Your task to perform on an android device: toggle translation in the chrome app Image 0: 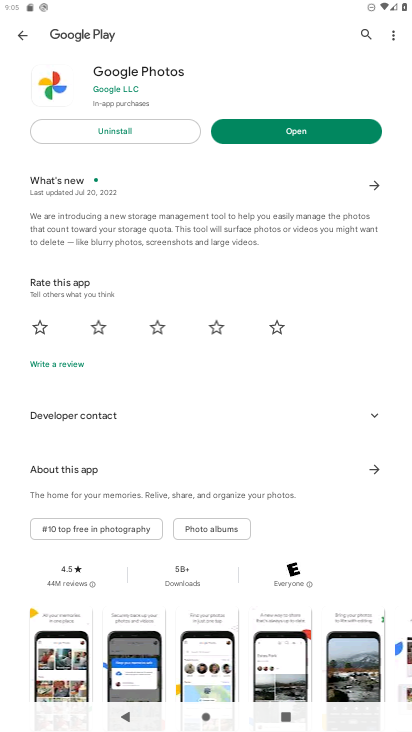
Step 0: press home button
Your task to perform on an android device: toggle translation in the chrome app Image 1: 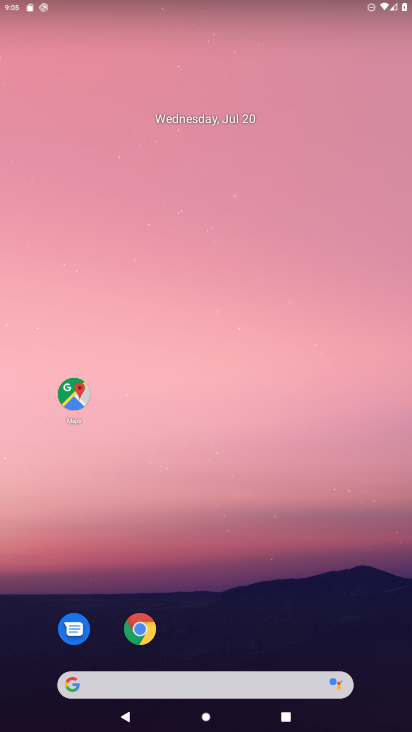
Step 1: click (143, 630)
Your task to perform on an android device: toggle translation in the chrome app Image 2: 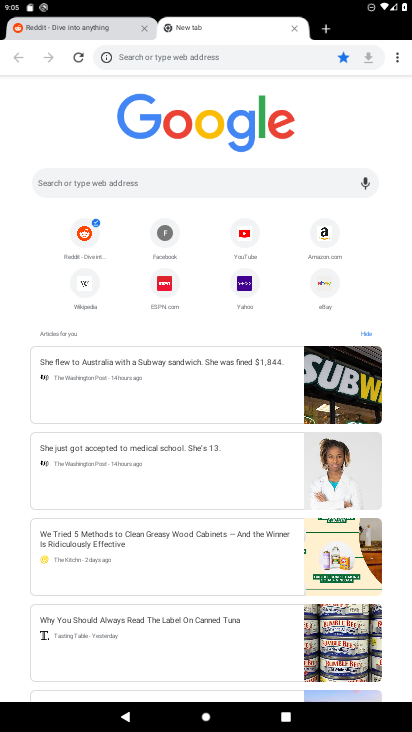
Step 2: click (398, 61)
Your task to perform on an android device: toggle translation in the chrome app Image 3: 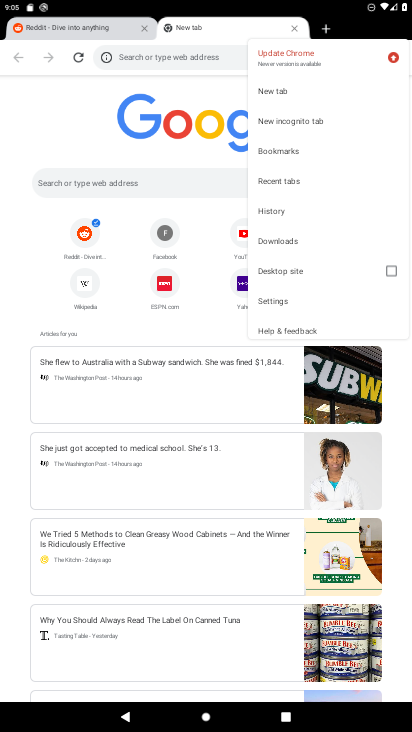
Step 3: click (274, 296)
Your task to perform on an android device: toggle translation in the chrome app Image 4: 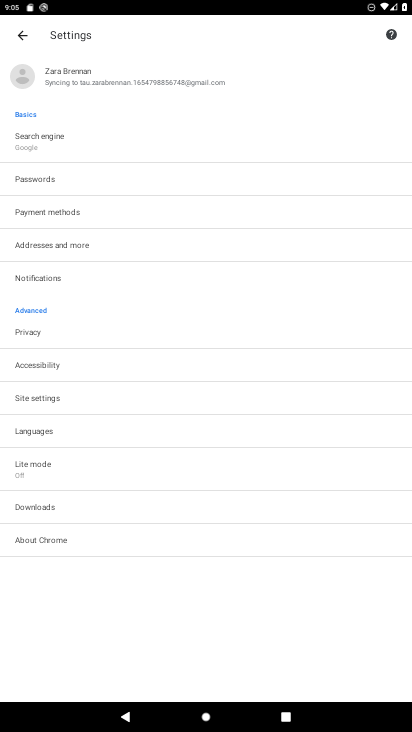
Step 4: click (29, 431)
Your task to perform on an android device: toggle translation in the chrome app Image 5: 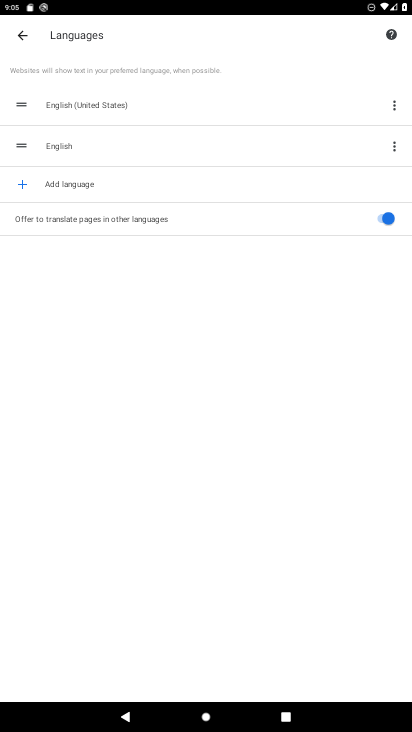
Step 5: click (374, 216)
Your task to perform on an android device: toggle translation in the chrome app Image 6: 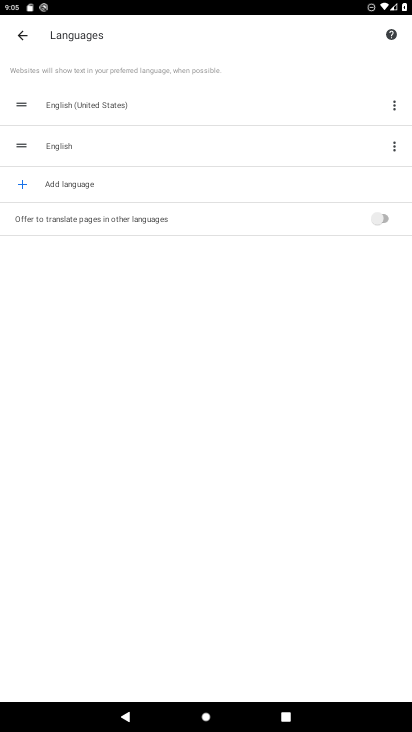
Step 6: task complete